Your task to perform on an android device: turn on airplane mode Image 0: 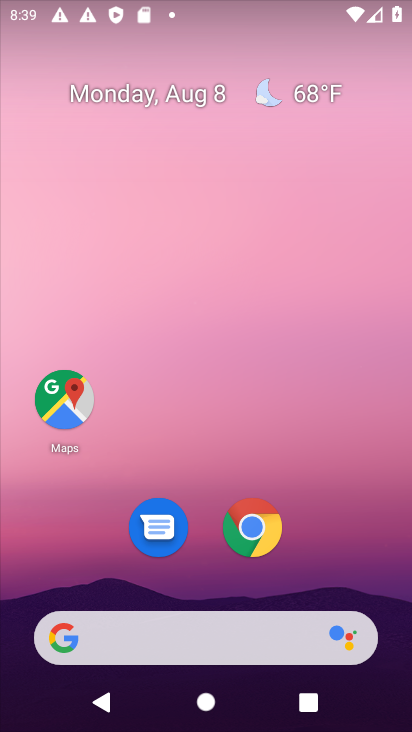
Step 0: drag from (375, 665) to (313, 159)
Your task to perform on an android device: turn on airplane mode Image 1: 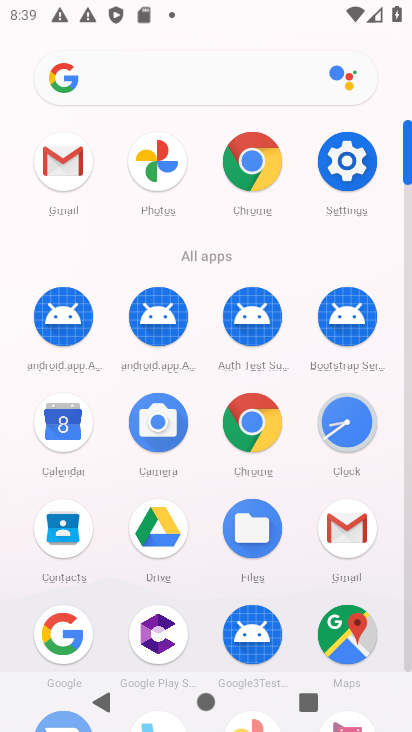
Step 1: click (349, 159)
Your task to perform on an android device: turn on airplane mode Image 2: 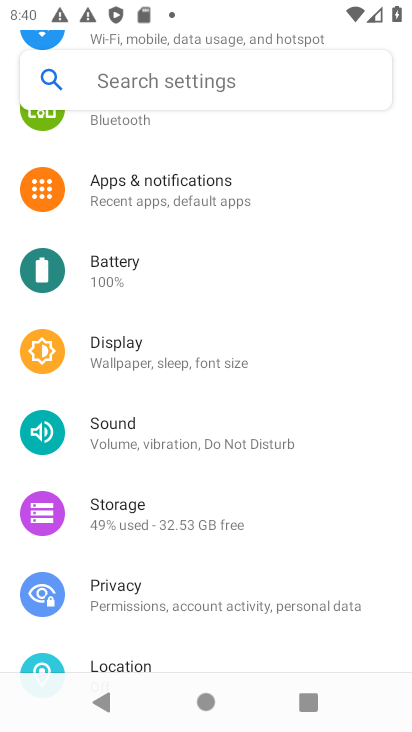
Step 2: drag from (244, 146) to (271, 640)
Your task to perform on an android device: turn on airplane mode Image 3: 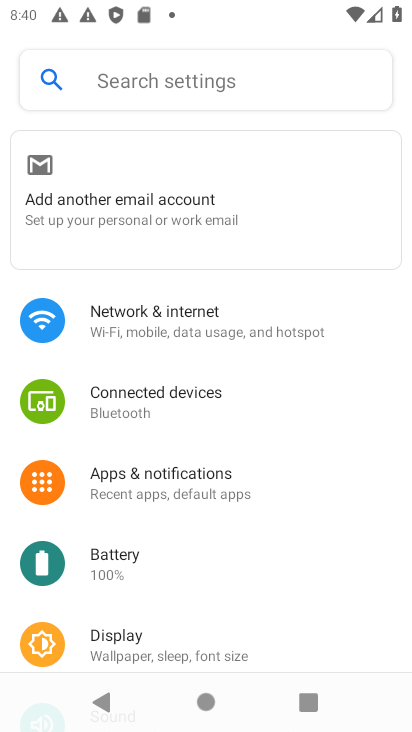
Step 3: click (145, 319)
Your task to perform on an android device: turn on airplane mode Image 4: 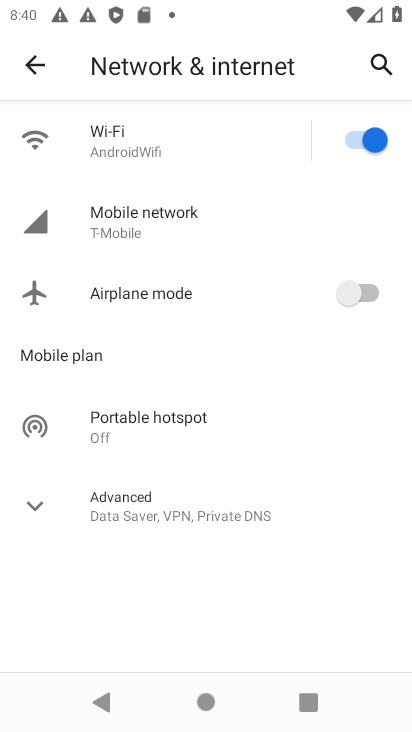
Step 4: click (350, 296)
Your task to perform on an android device: turn on airplane mode Image 5: 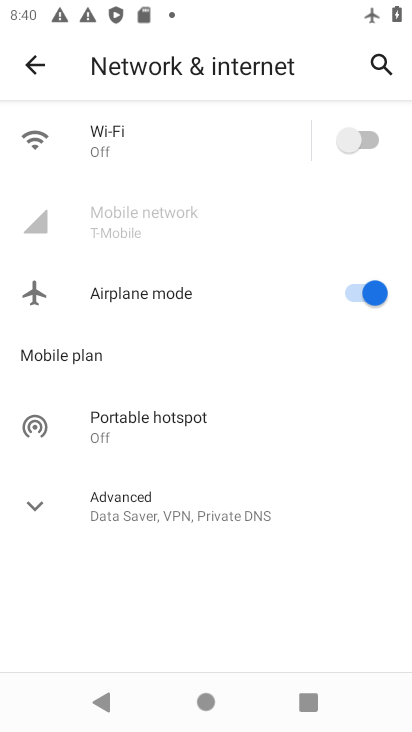
Step 5: task complete